Your task to perform on an android device: Check the settings for the Google Play Books app Image 0: 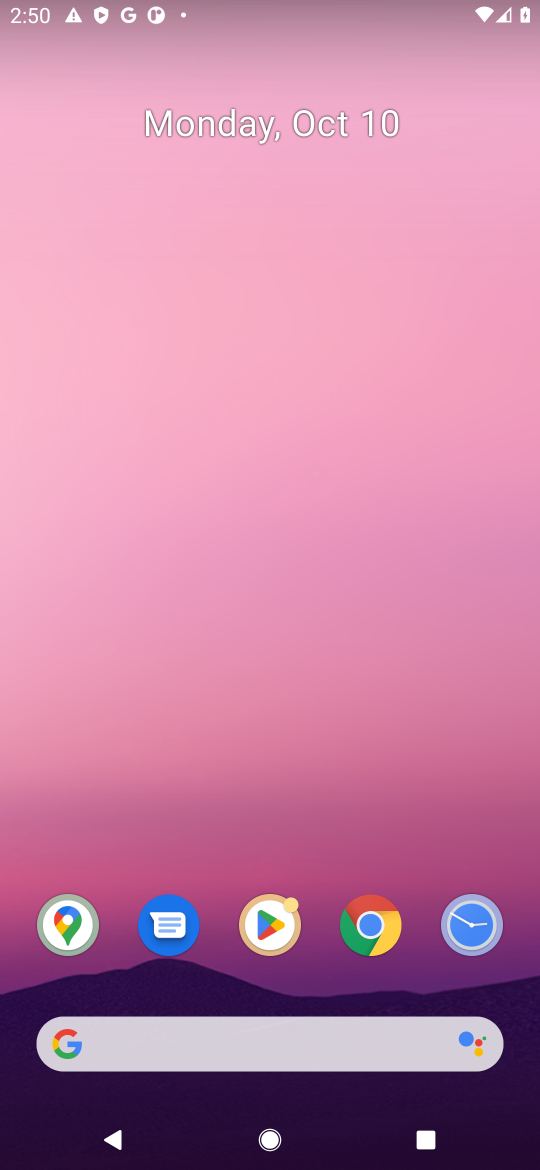
Step 0: click (349, 932)
Your task to perform on an android device: Check the settings for the Google Play Books app Image 1: 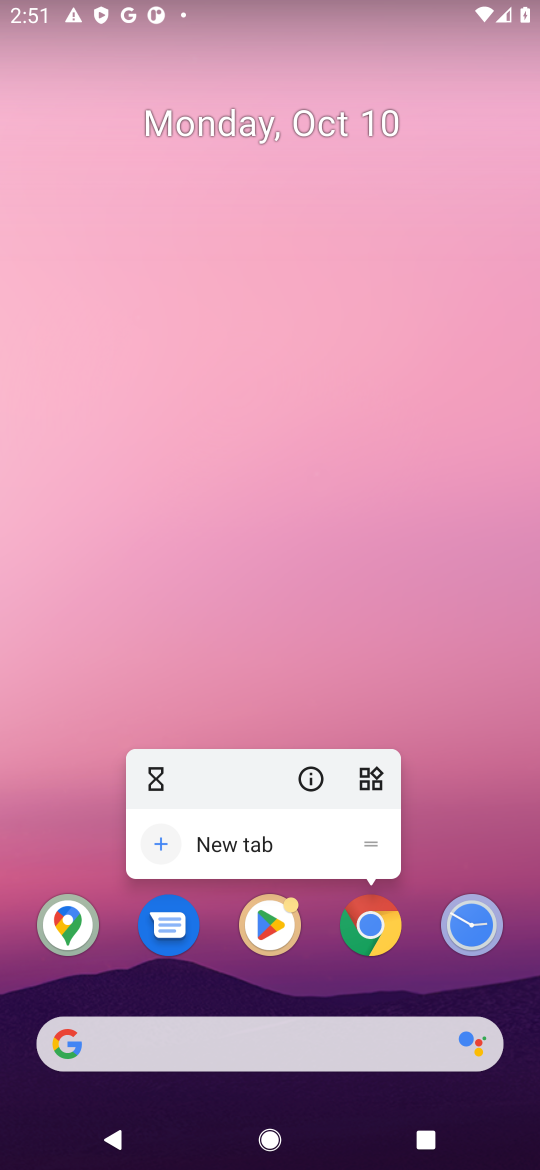
Step 1: click (349, 932)
Your task to perform on an android device: Check the settings for the Google Play Books app Image 2: 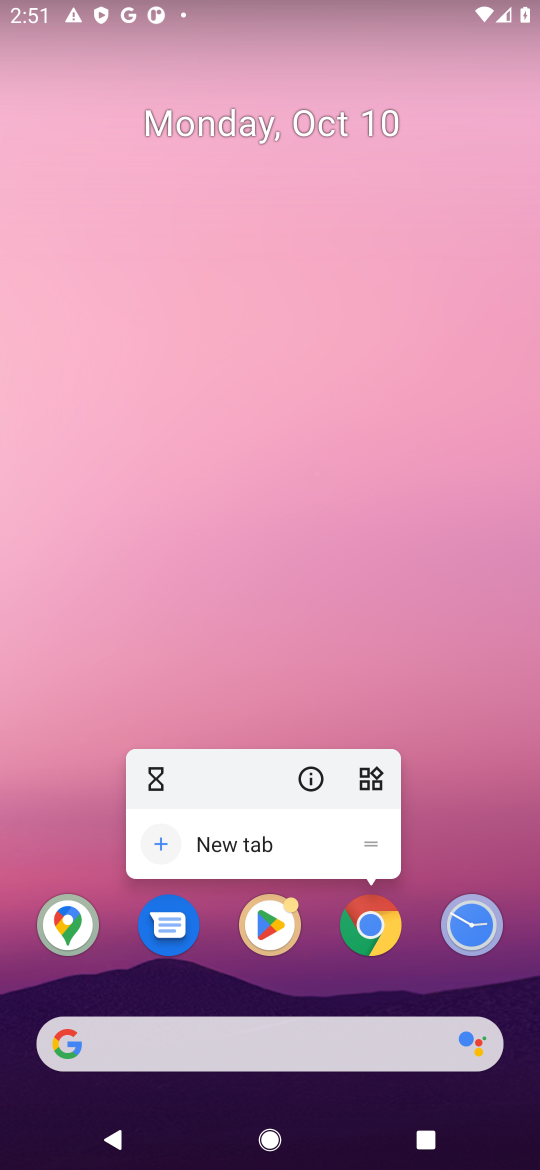
Step 2: drag from (285, 1017) to (203, 414)
Your task to perform on an android device: Check the settings for the Google Play Books app Image 3: 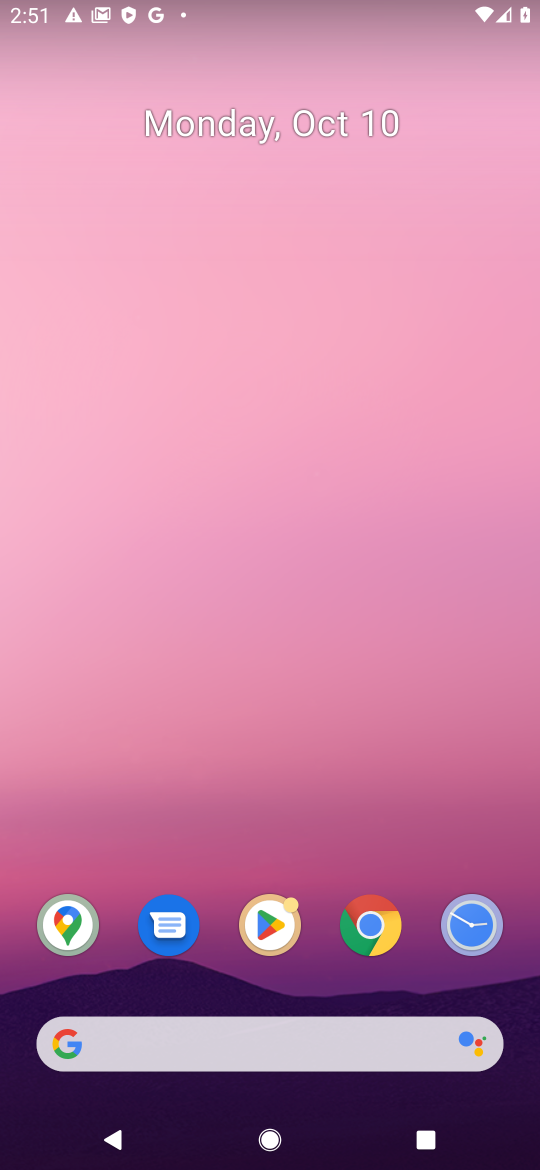
Step 3: drag from (341, 1001) to (357, 373)
Your task to perform on an android device: Check the settings for the Google Play Books app Image 4: 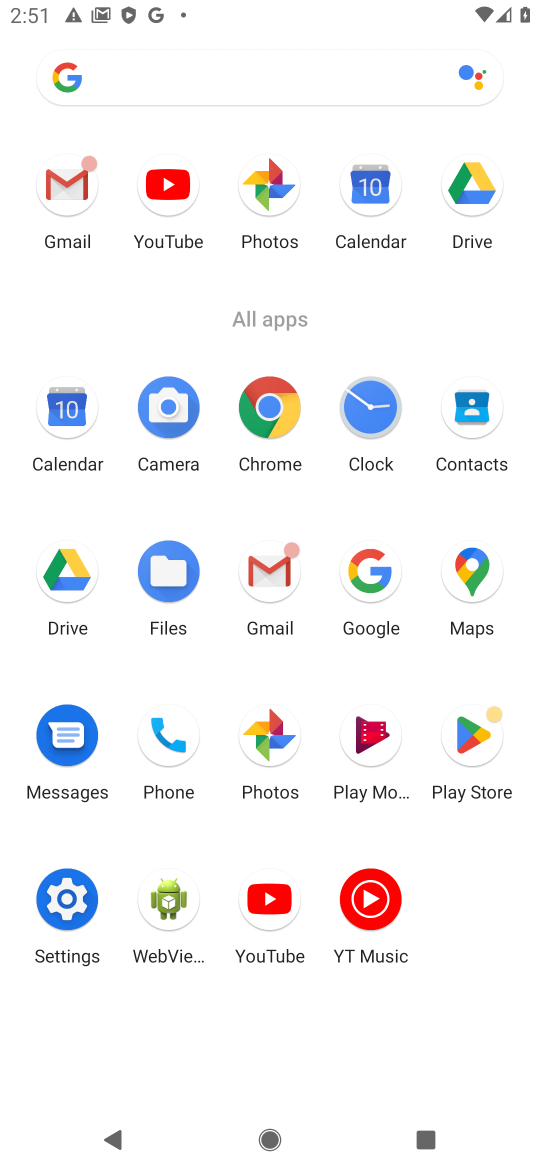
Step 4: click (350, 764)
Your task to perform on an android device: Check the settings for the Google Play Books app Image 5: 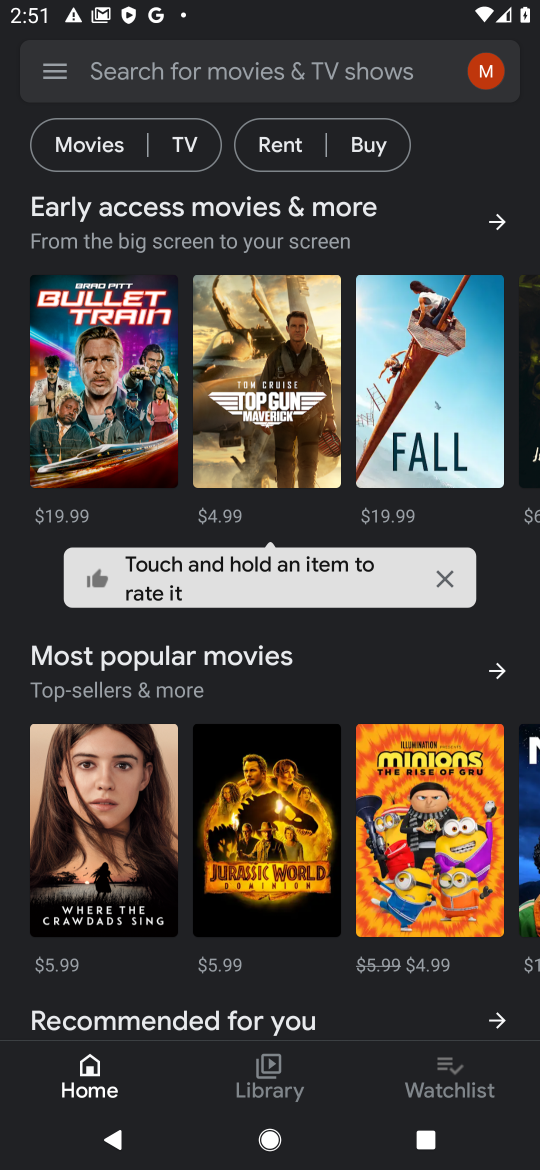
Step 5: click (71, 54)
Your task to perform on an android device: Check the settings for the Google Play Books app Image 6: 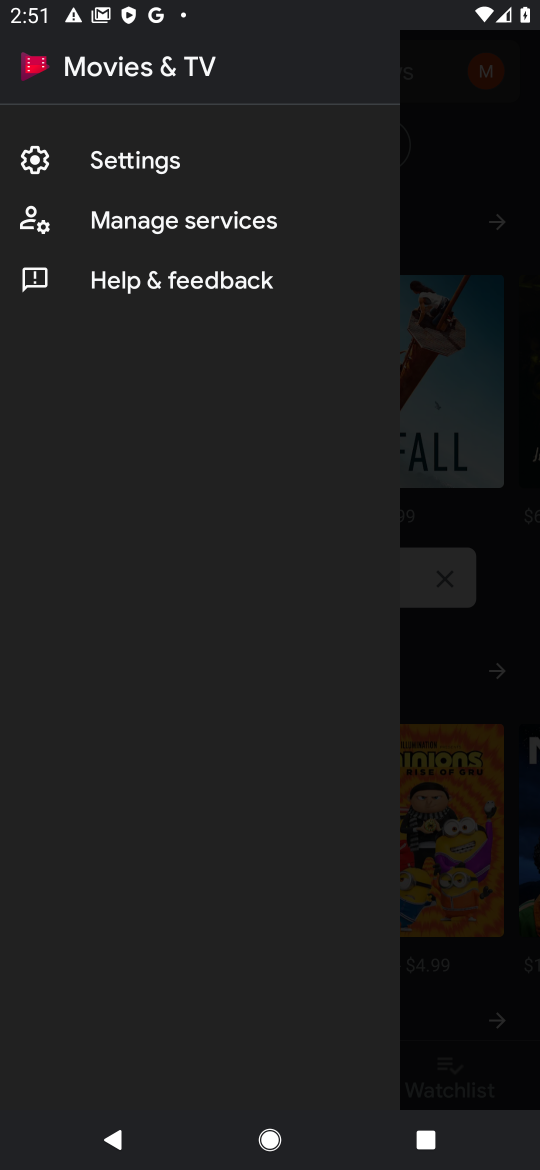
Step 6: click (107, 153)
Your task to perform on an android device: Check the settings for the Google Play Books app Image 7: 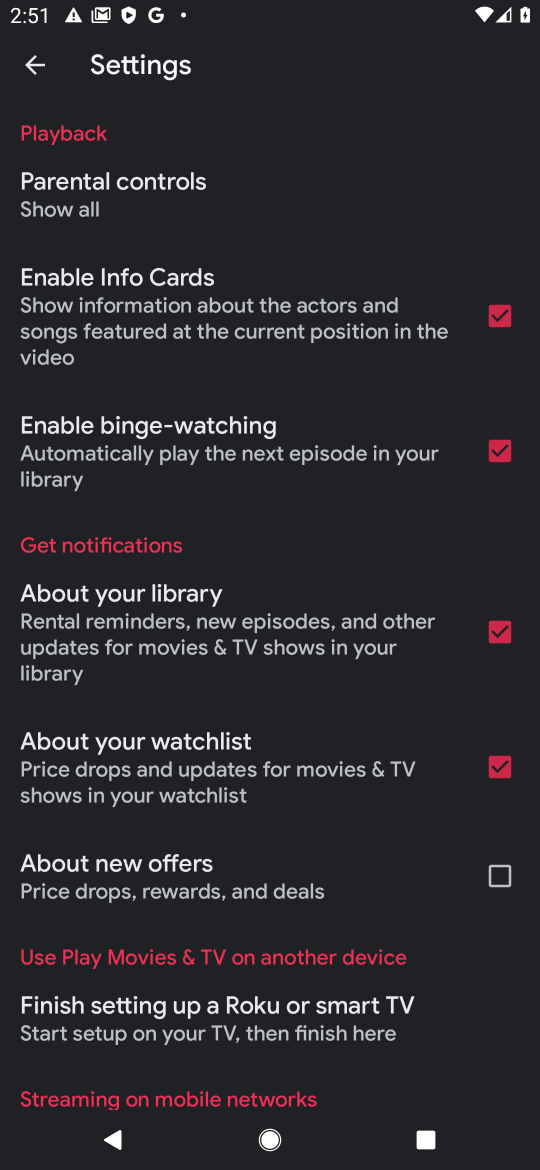
Step 7: task complete